Your task to perform on an android device: set an alarm Image 0: 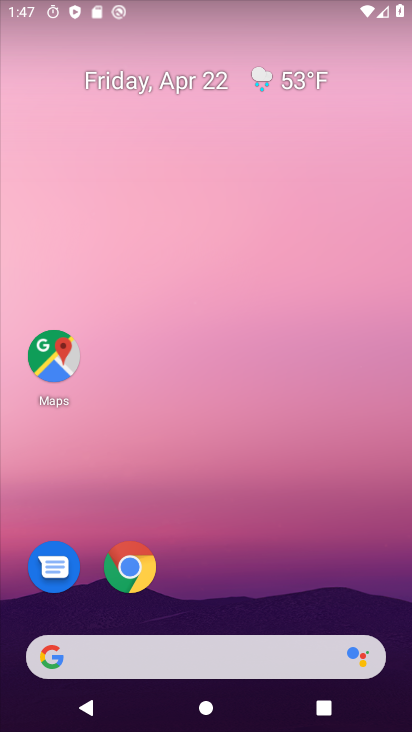
Step 0: drag from (291, 557) to (313, 74)
Your task to perform on an android device: set an alarm Image 1: 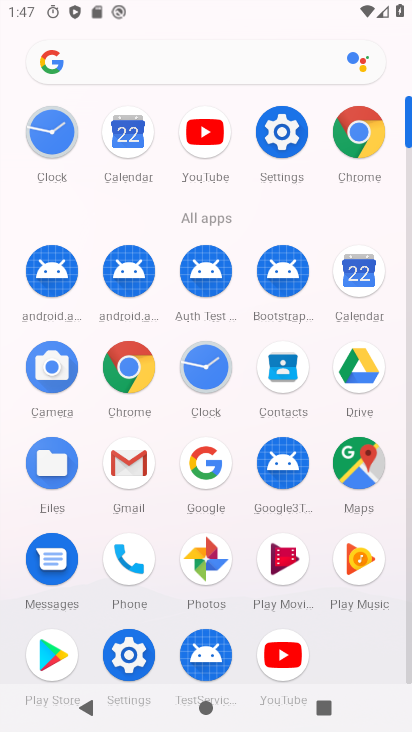
Step 1: click (61, 141)
Your task to perform on an android device: set an alarm Image 2: 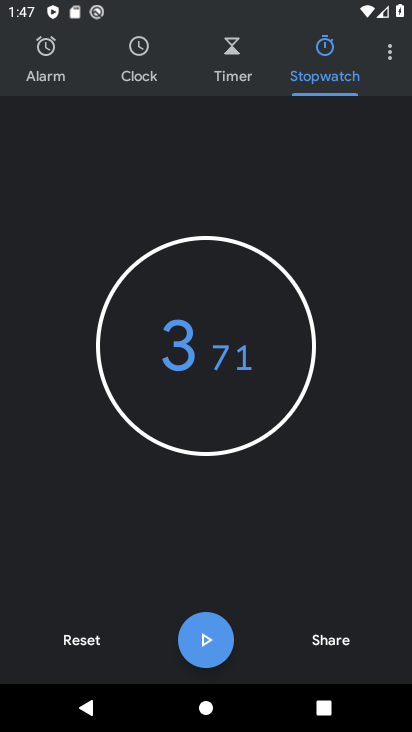
Step 2: click (49, 55)
Your task to perform on an android device: set an alarm Image 3: 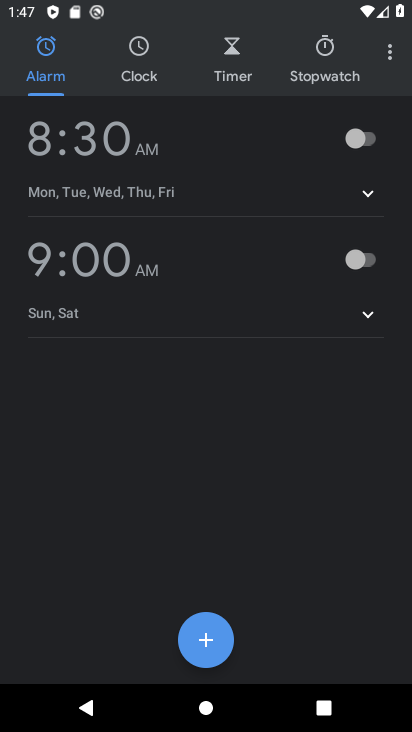
Step 3: click (207, 633)
Your task to perform on an android device: set an alarm Image 4: 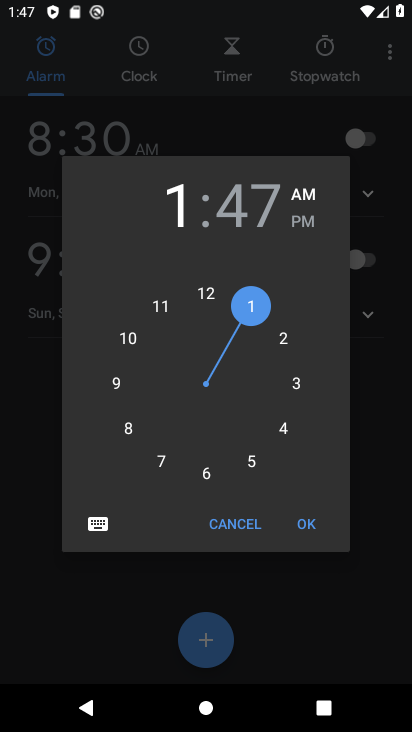
Step 4: click (248, 206)
Your task to perform on an android device: set an alarm Image 5: 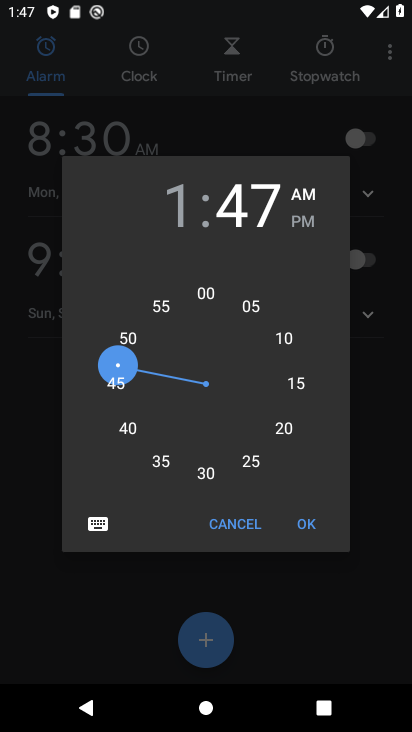
Step 5: click (206, 466)
Your task to perform on an android device: set an alarm Image 6: 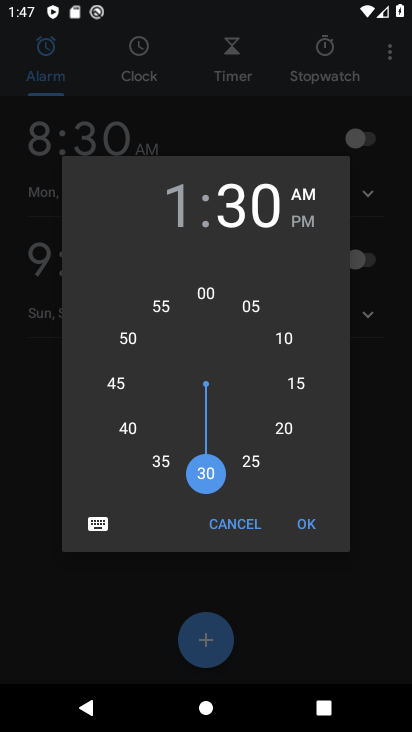
Step 6: click (305, 215)
Your task to perform on an android device: set an alarm Image 7: 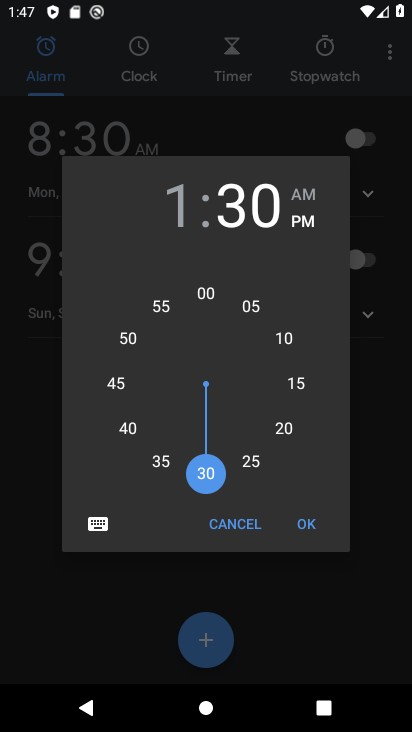
Step 7: click (310, 522)
Your task to perform on an android device: set an alarm Image 8: 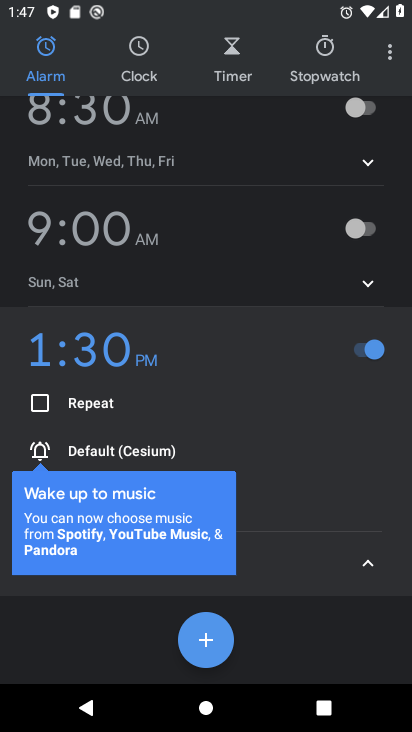
Step 8: task complete